Your task to perform on an android device: all mails in gmail Image 0: 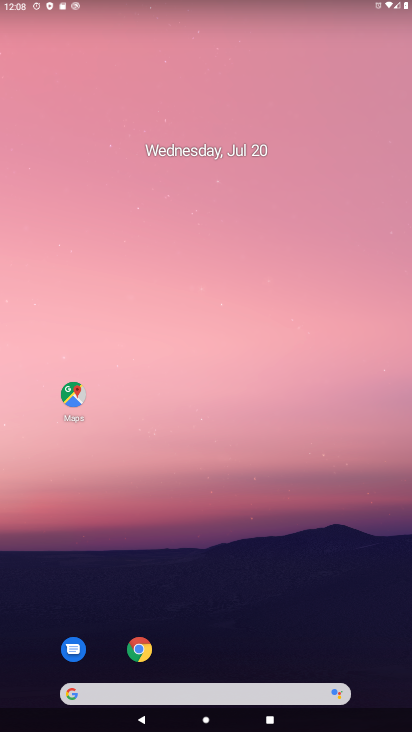
Step 0: drag from (231, 728) to (264, 180)
Your task to perform on an android device: all mails in gmail Image 1: 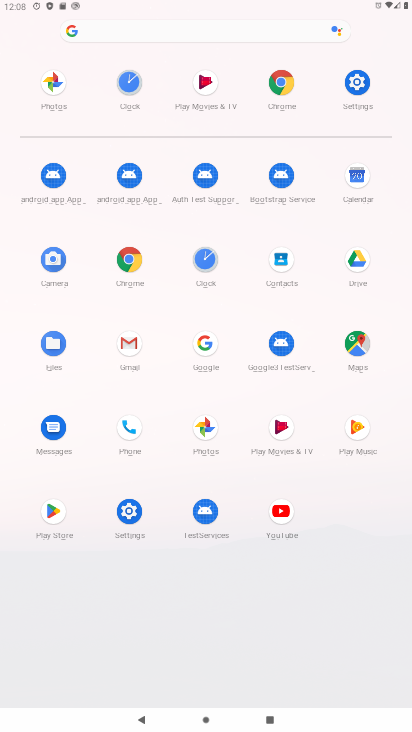
Step 1: click (122, 345)
Your task to perform on an android device: all mails in gmail Image 2: 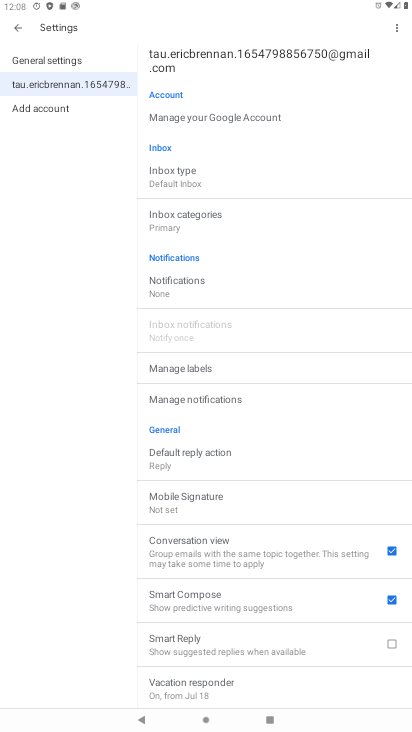
Step 2: click (86, 82)
Your task to perform on an android device: all mails in gmail Image 3: 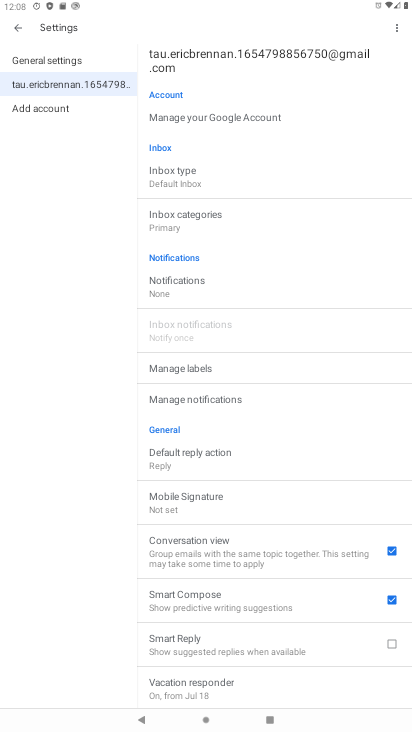
Step 3: click (17, 27)
Your task to perform on an android device: all mails in gmail Image 4: 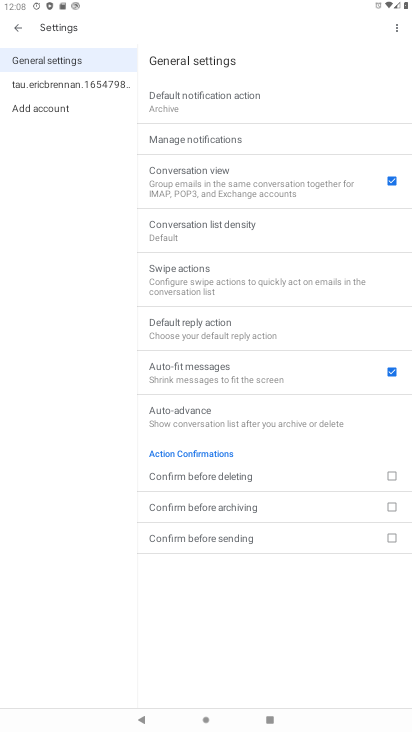
Step 4: click (18, 25)
Your task to perform on an android device: all mails in gmail Image 5: 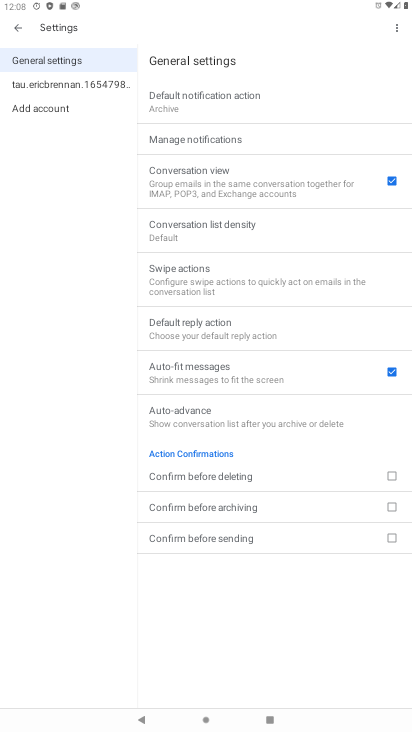
Step 5: click (18, 25)
Your task to perform on an android device: all mails in gmail Image 6: 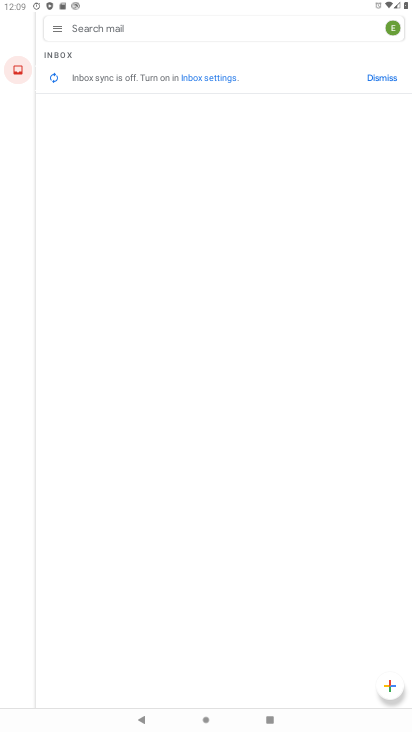
Step 6: click (57, 27)
Your task to perform on an android device: all mails in gmail Image 7: 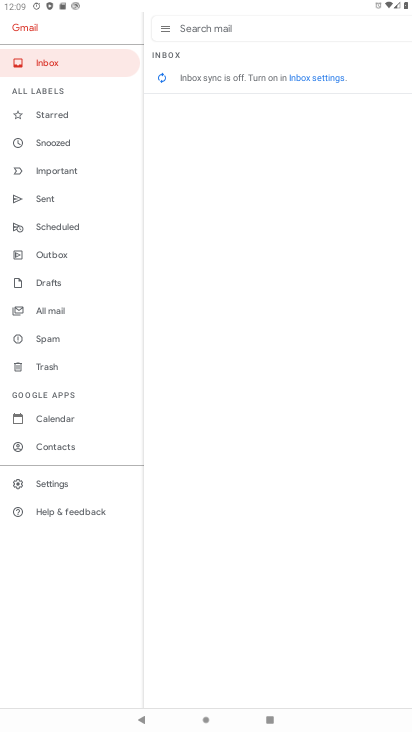
Step 7: click (49, 307)
Your task to perform on an android device: all mails in gmail Image 8: 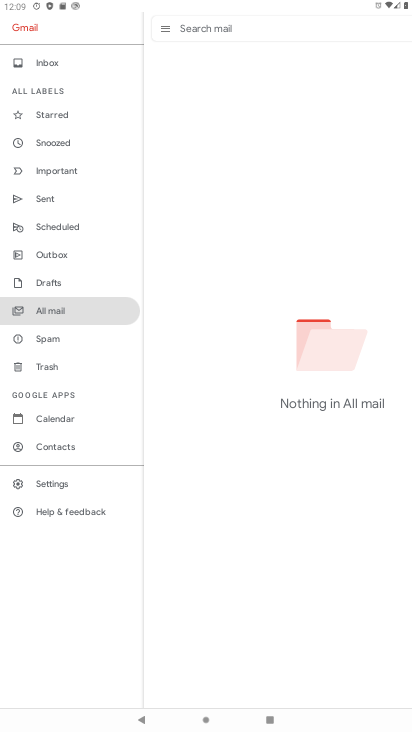
Step 8: task complete